Your task to perform on an android device: open a new tab in the chrome app Image 0: 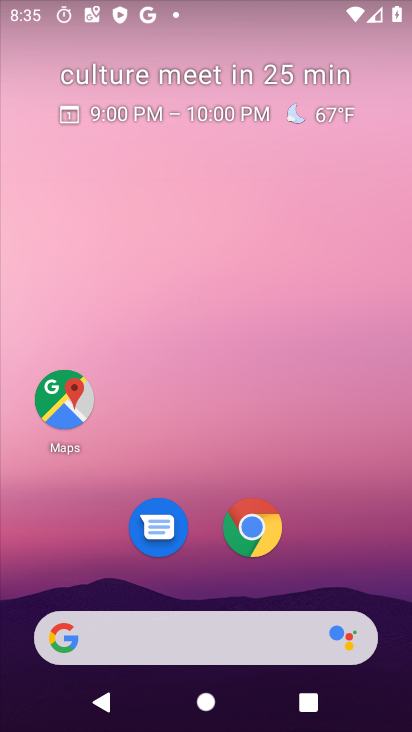
Step 0: click (246, 527)
Your task to perform on an android device: open a new tab in the chrome app Image 1: 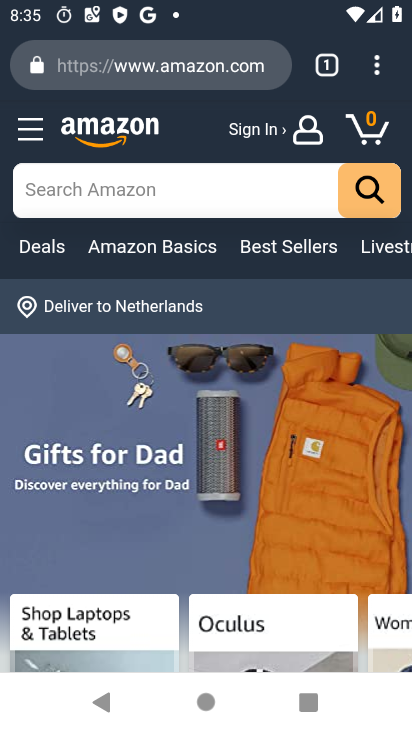
Step 1: click (376, 74)
Your task to perform on an android device: open a new tab in the chrome app Image 2: 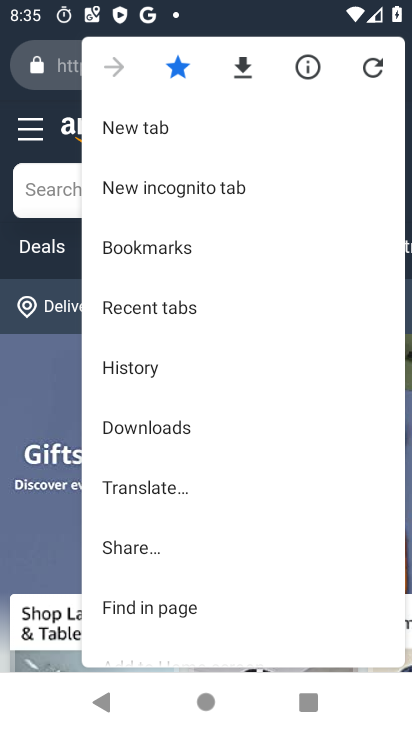
Step 2: click (140, 129)
Your task to perform on an android device: open a new tab in the chrome app Image 3: 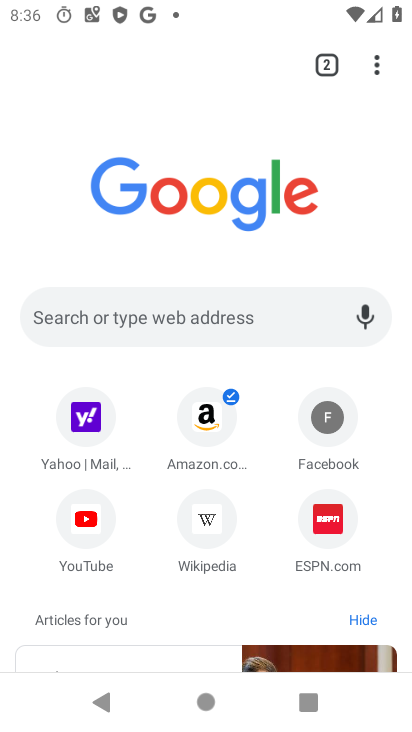
Step 3: task complete